Your task to perform on an android device: Open Yahoo.com Image 0: 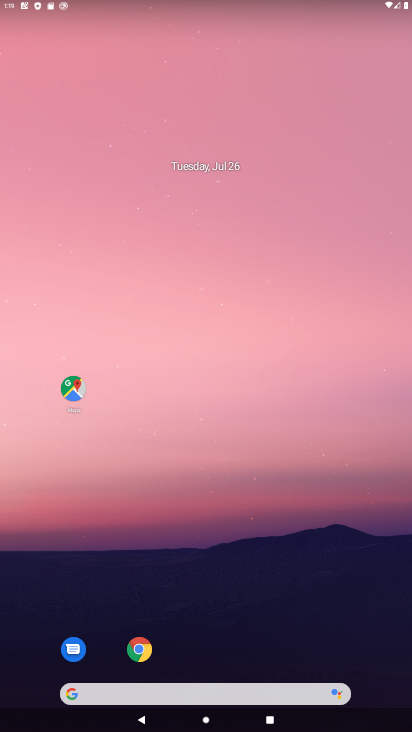
Step 0: drag from (217, 663) to (228, 129)
Your task to perform on an android device: Open Yahoo.com Image 1: 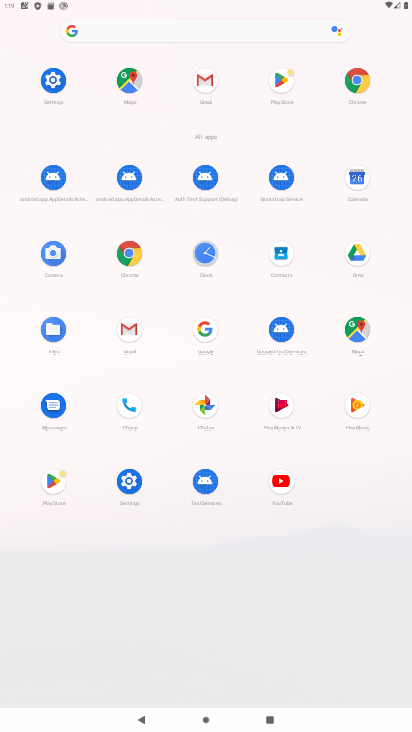
Step 1: click (359, 77)
Your task to perform on an android device: Open Yahoo.com Image 2: 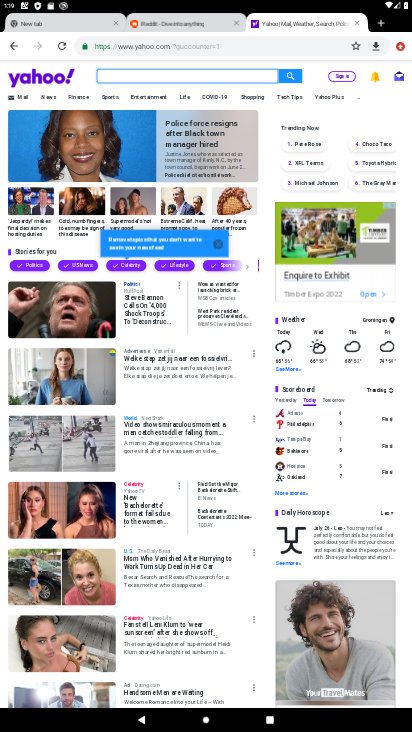
Step 2: task complete